Your task to perform on an android device: open the mobile data screen to see how much data has been used Image 0: 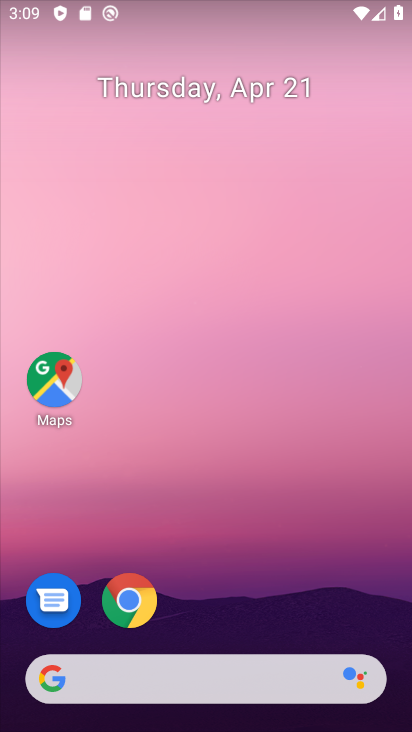
Step 0: drag from (296, 635) to (286, 41)
Your task to perform on an android device: open the mobile data screen to see how much data has been used Image 1: 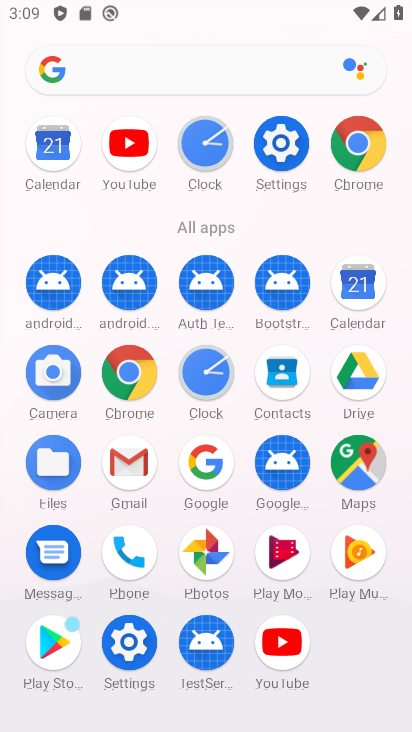
Step 1: click (271, 157)
Your task to perform on an android device: open the mobile data screen to see how much data has been used Image 2: 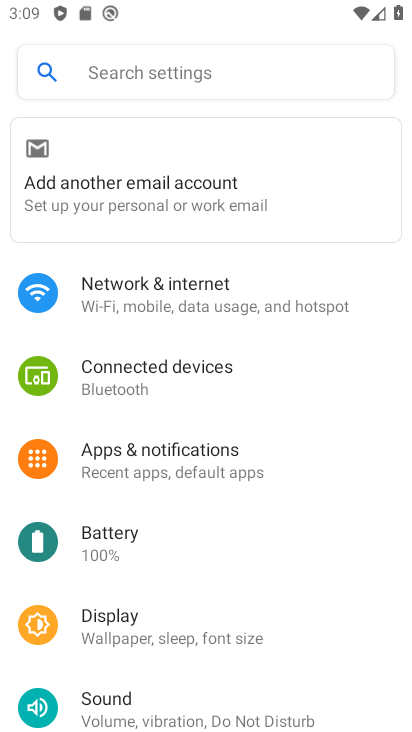
Step 2: click (238, 315)
Your task to perform on an android device: open the mobile data screen to see how much data has been used Image 3: 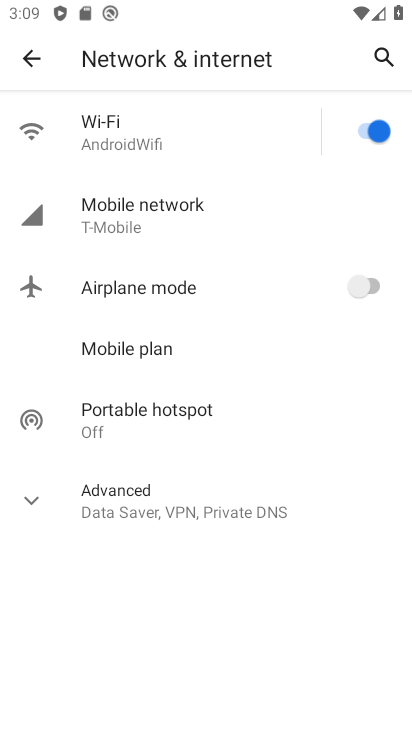
Step 3: click (124, 225)
Your task to perform on an android device: open the mobile data screen to see how much data has been used Image 4: 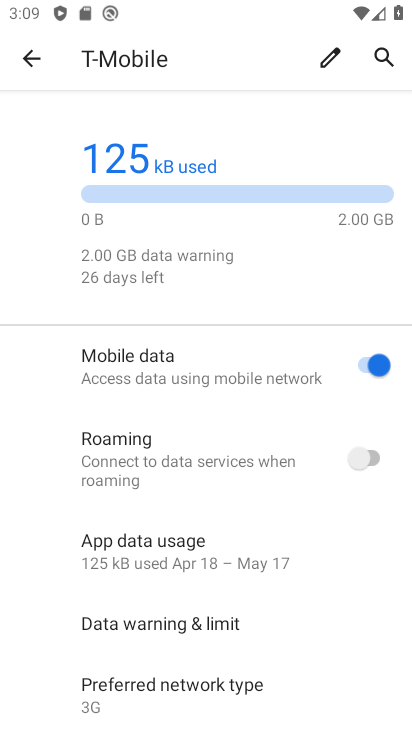
Step 4: drag from (123, 316) to (158, 186)
Your task to perform on an android device: open the mobile data screen to see how much data has been used Image 5: 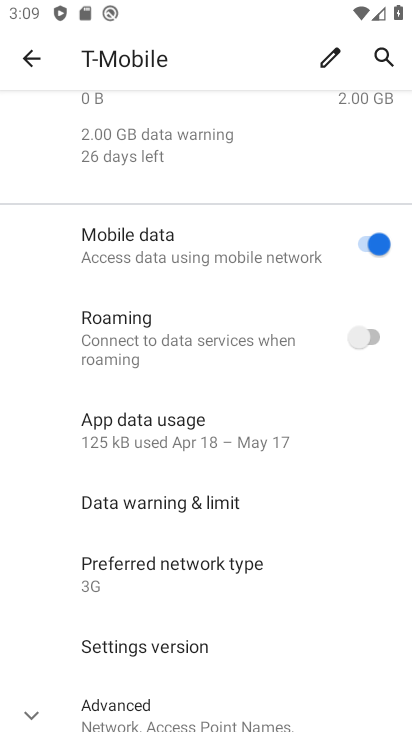
Step 5: click (145, 412)
Your task to perform on an android device: open the mobile data screen to see how much data has been used Image 6: 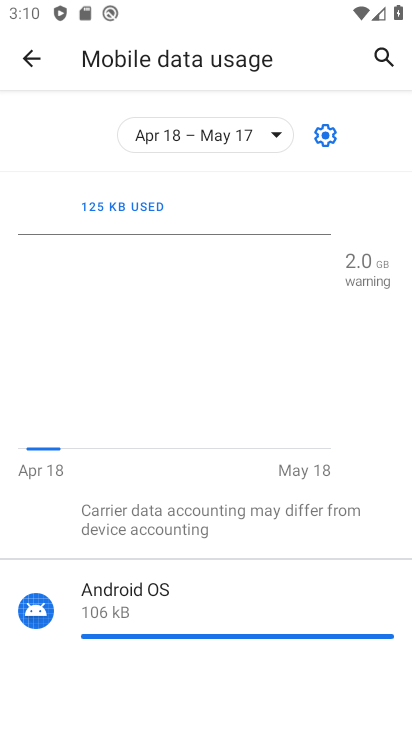
Step 6: task complete